Your task to perform on an android device: Open notification settings Image 0: 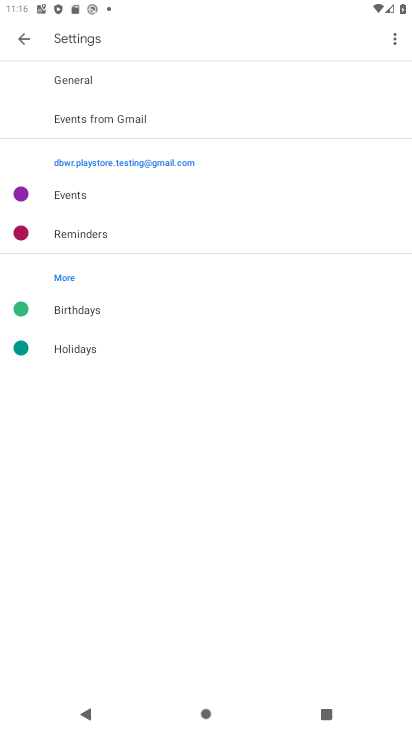
Step 0: press back button
Your task to perform on an android device: Open notification settings Image 1: 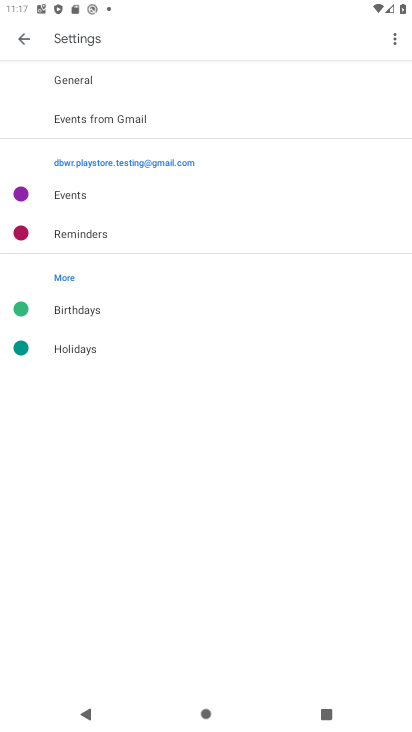
Step 1: press back button
Your task to perform on an android device: Open notification settings Image 2: 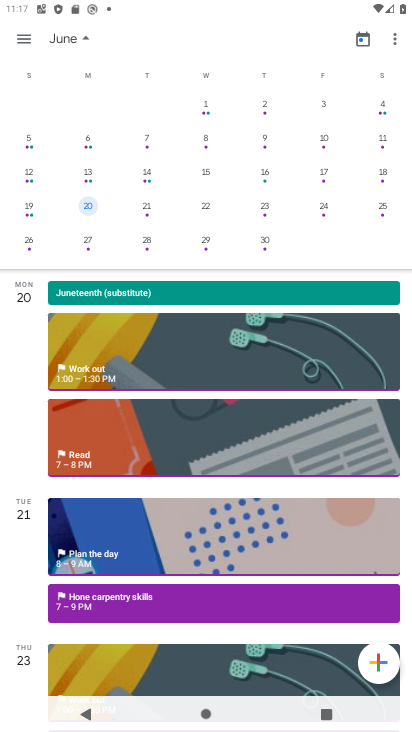
Step 2: press back button
Your task to perform on an android device: Open notification settings Image 3: 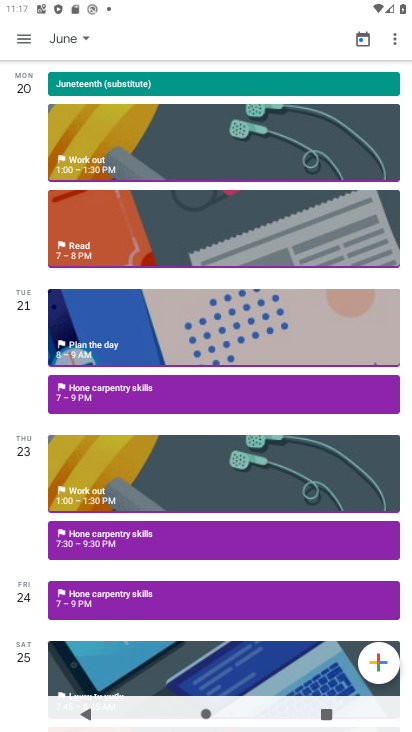
Step 3: press back button
Your task to perform on an android device: Open notification settings Image 4: 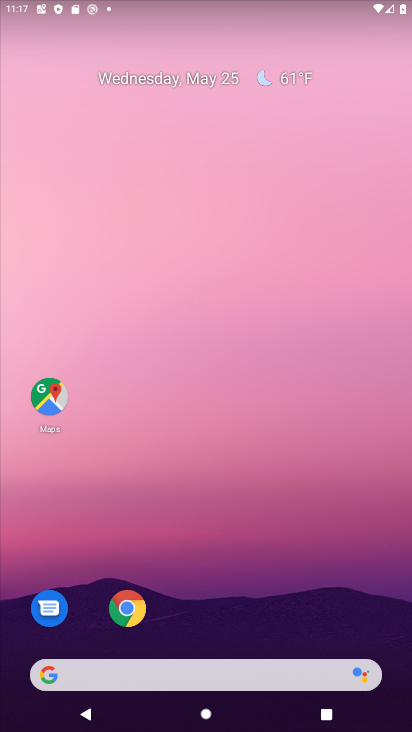
Step 4: drag from (246, 586) to (367, 0)
Your task to perform on an android device: Open notification settings Image 5: 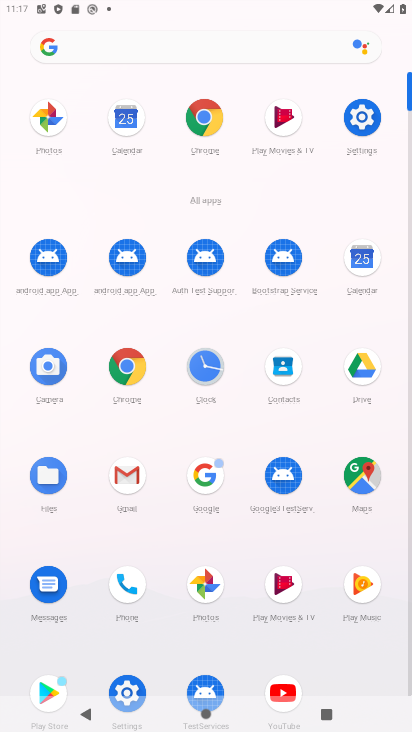
Step 5: click (367, 107)
Your task to perform on an android device: Open notification settings Image 6: 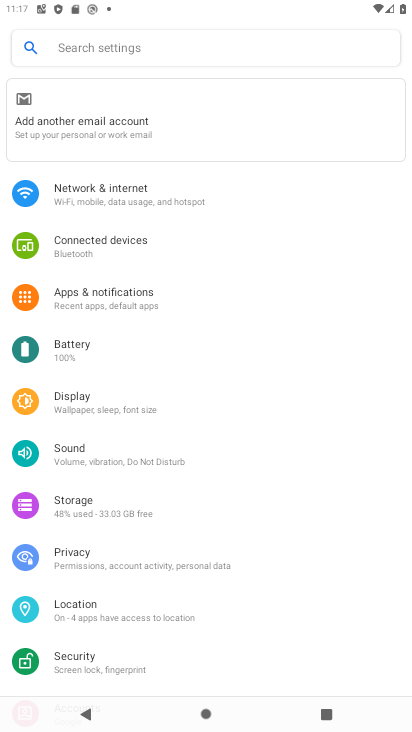
Step 6: click (127, 304)
Your task to perform on an android device: Open notification settings Image 7: 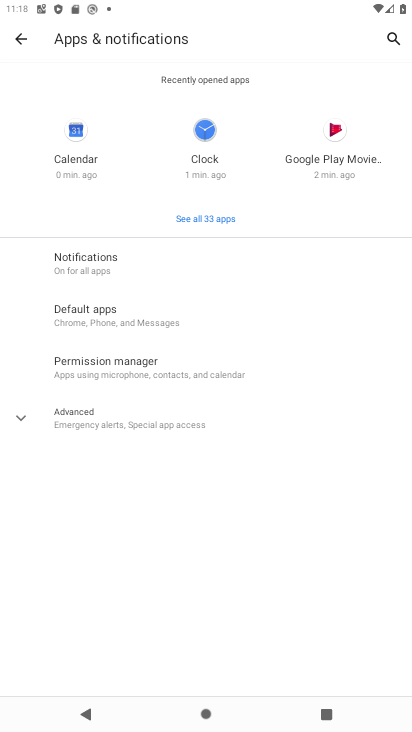
Step 7: task complete